Your task to perform on an android device: turn smart compose on in the gmail app Image 0: 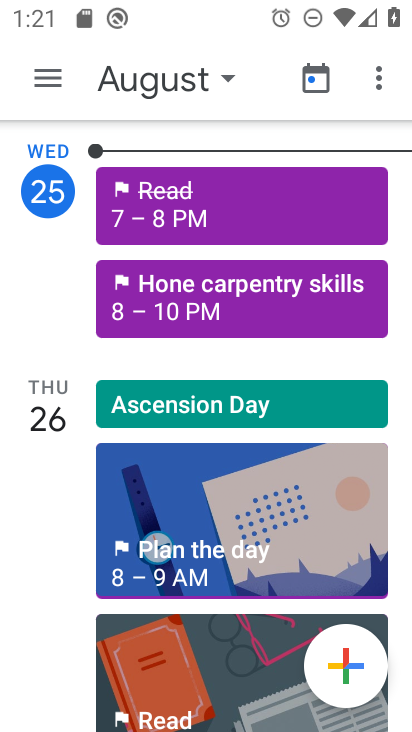
Step 0: press home button
Your task to perform on an android device: turn smart compose on in the gmail app Image 1: 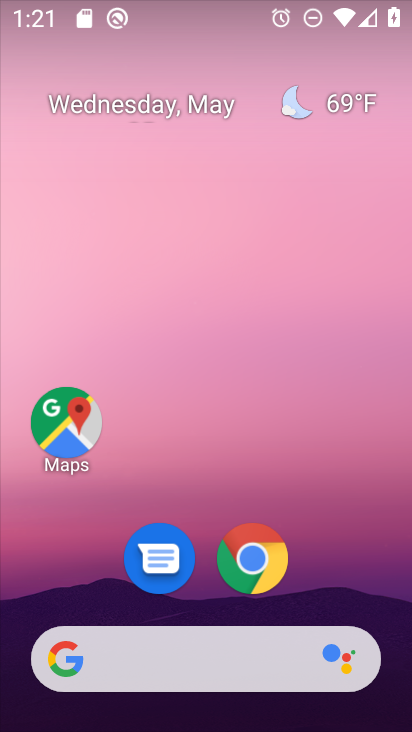
Step 1: drag from (385, 640) to (349, 84)
Your task to perform on an android device: turn smart compose on in the gmail app Image 2: 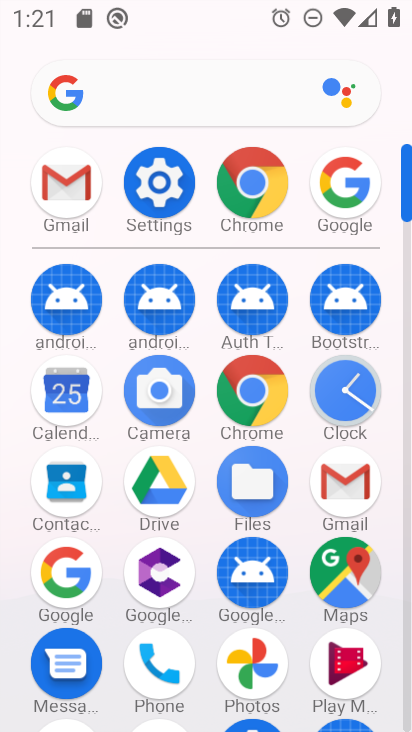
Step 2: click (348, 499)
Your task to perform on an android device: turn smart compose on in the gmail app Image 3: 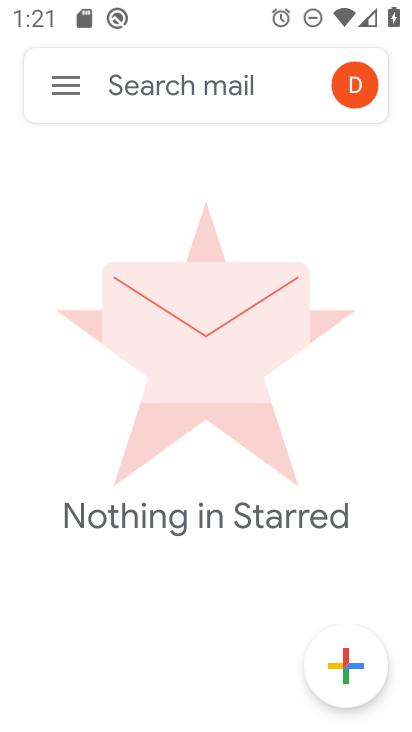
Step 3: click (71, 70)
Your task to perform on an android device: turn smart compose on in the gmail app Image 4: 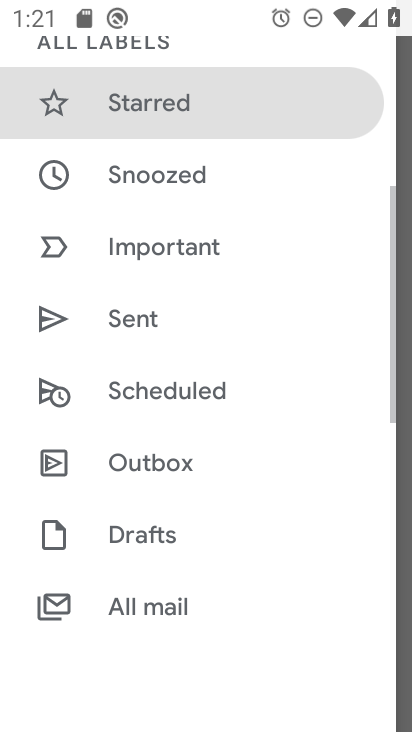
Step 4: drag from (178, 616) to (238, 43)
Your task to perform on an android device: turn smart compose on in the gmail app Image 5: 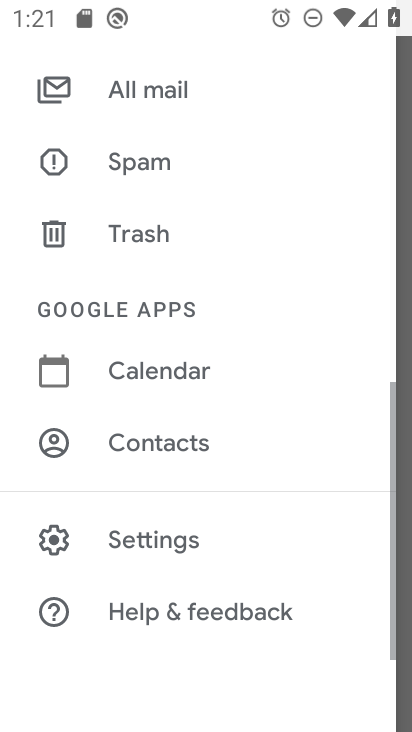
Step 5: click (168, 545)
Your task to perform on an android device: turn smart compose on in the gmail app Image 6: 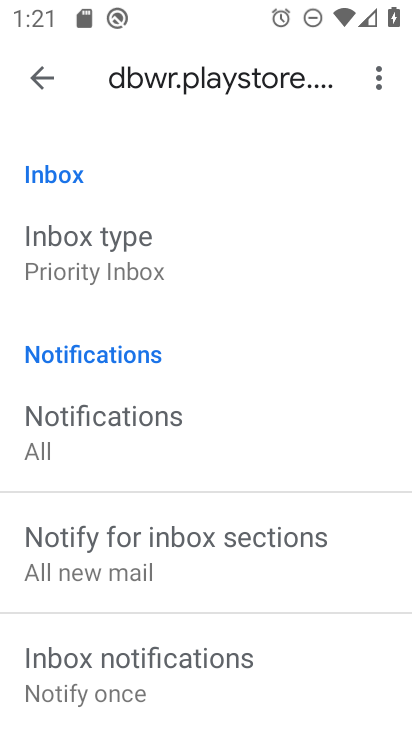
Step 6: task complete